Your task to perform on an android device: turn off wifi Image 0: 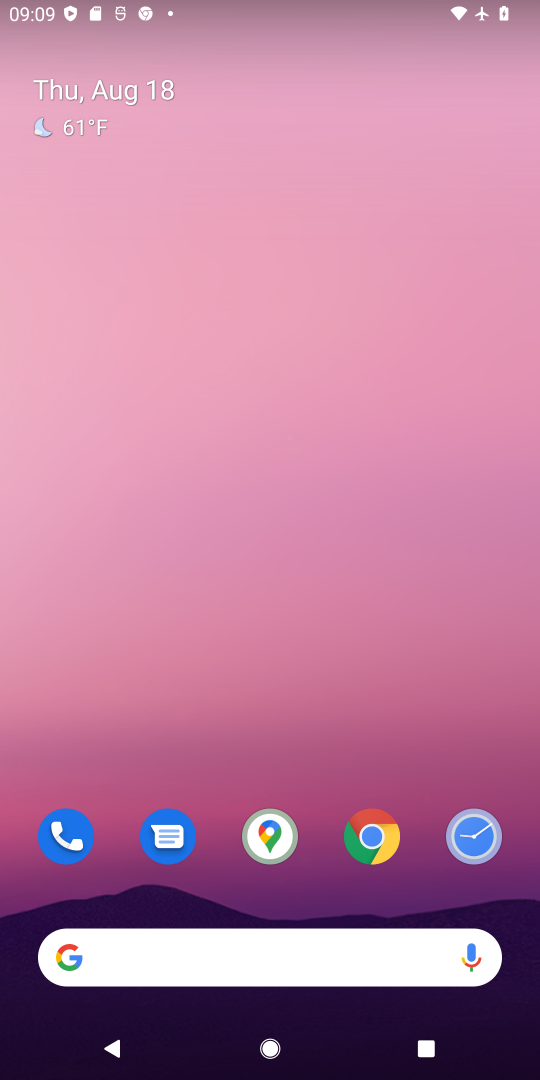
Step 0: drag from (279, 621) to (384, 69)
Your task to perform on an android device: turn off wifi Image 1: 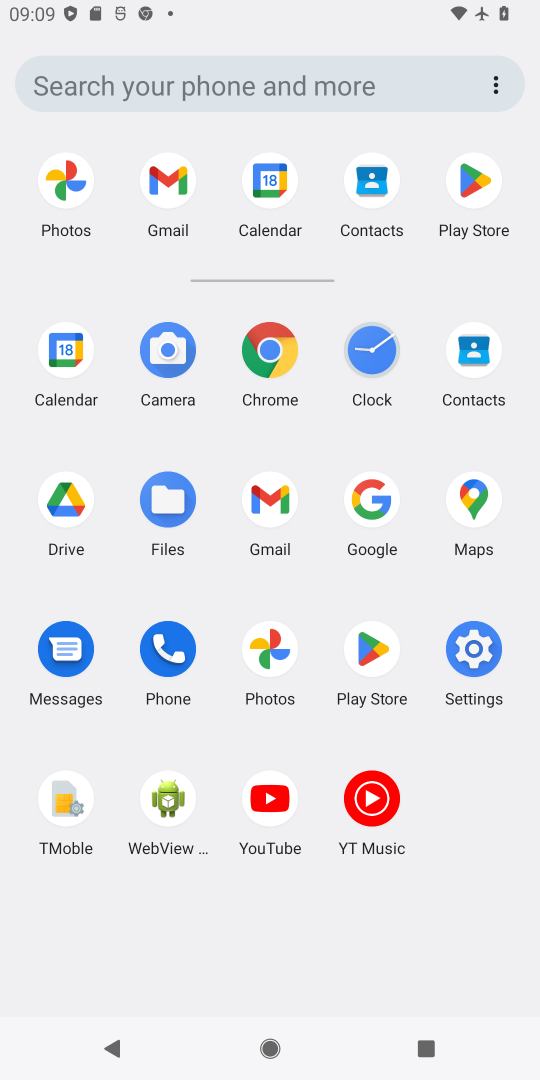
Step 1: click (467, 651)
Your task to perform on an android device: turn off wifi Image 2: 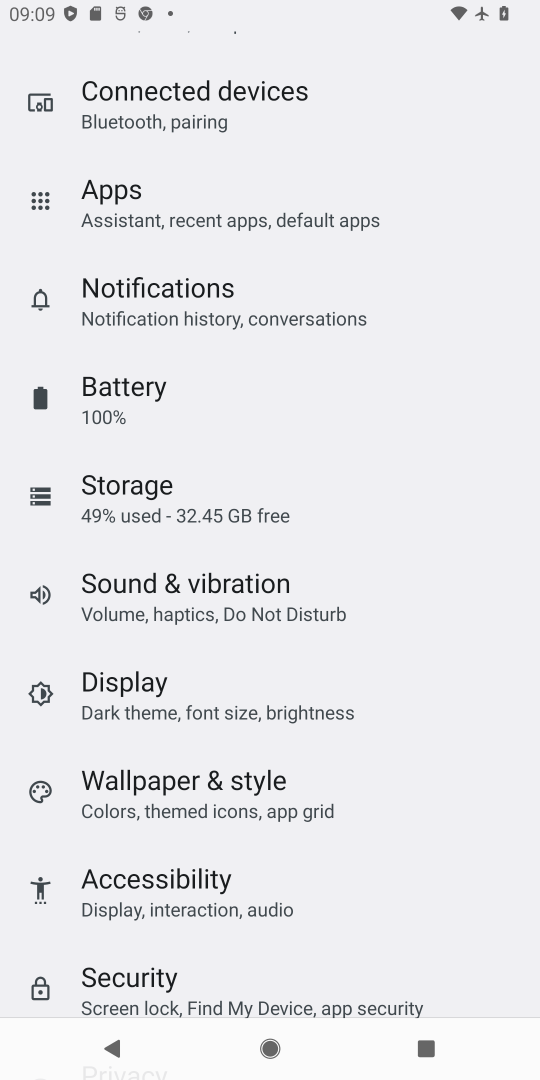
Step 2: drag from (318, 206) to (271, 734)
Your task to perform on an android device: turn off wifi Image 3: 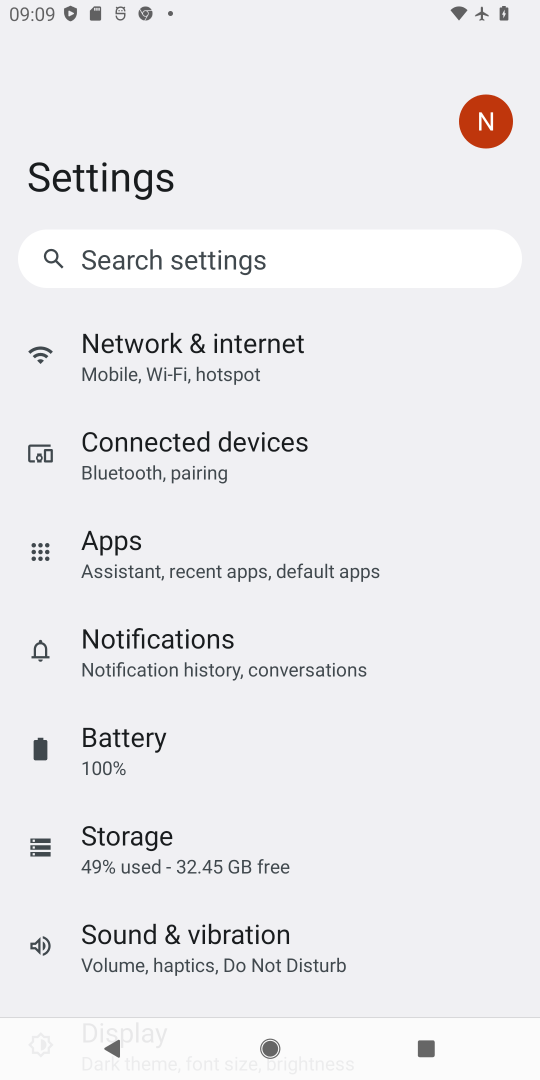
Step 3: click (260, 372)
Your task to perform on an android device: turn off wifi Image 4: 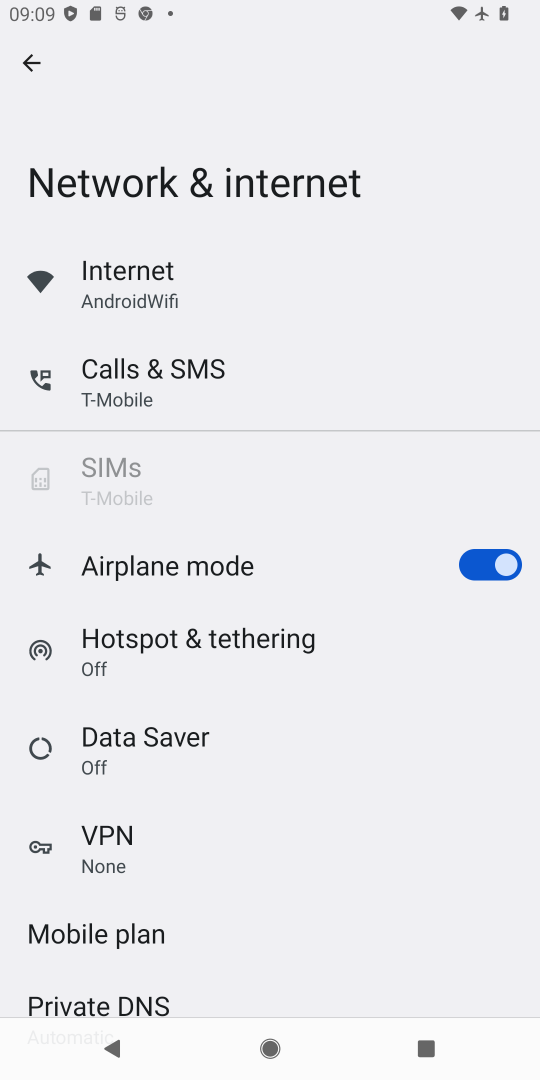
Step 4: click (173, 303)
Your task to perform on an android device: turn off wifi Image 5: 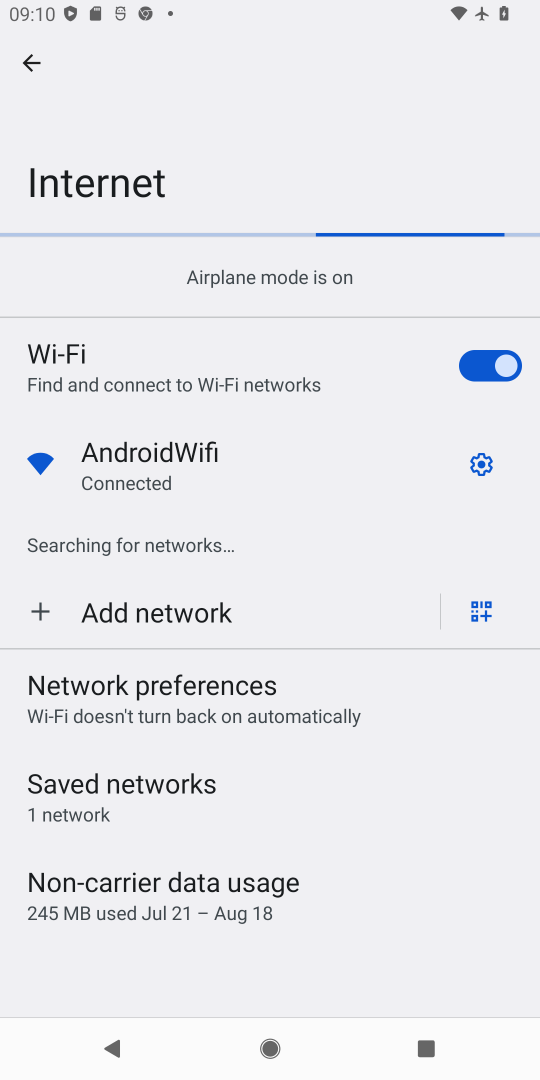
Step 5: click (476, 383)
Your task to perform on an android device: turn off wifi Image 6: 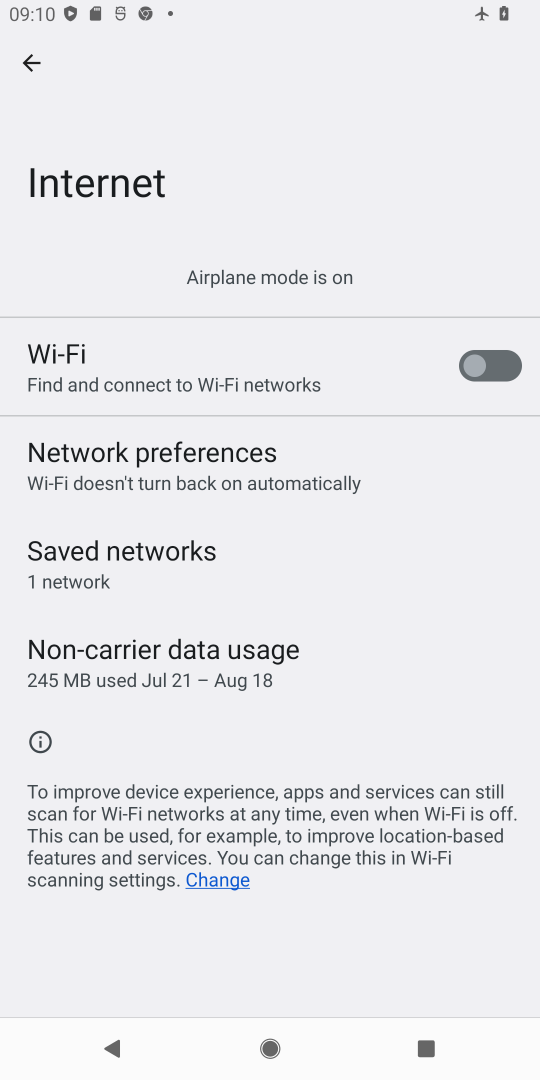
Step 6: task complete